Your task to perform on an android device: change notifications settings Image 0: 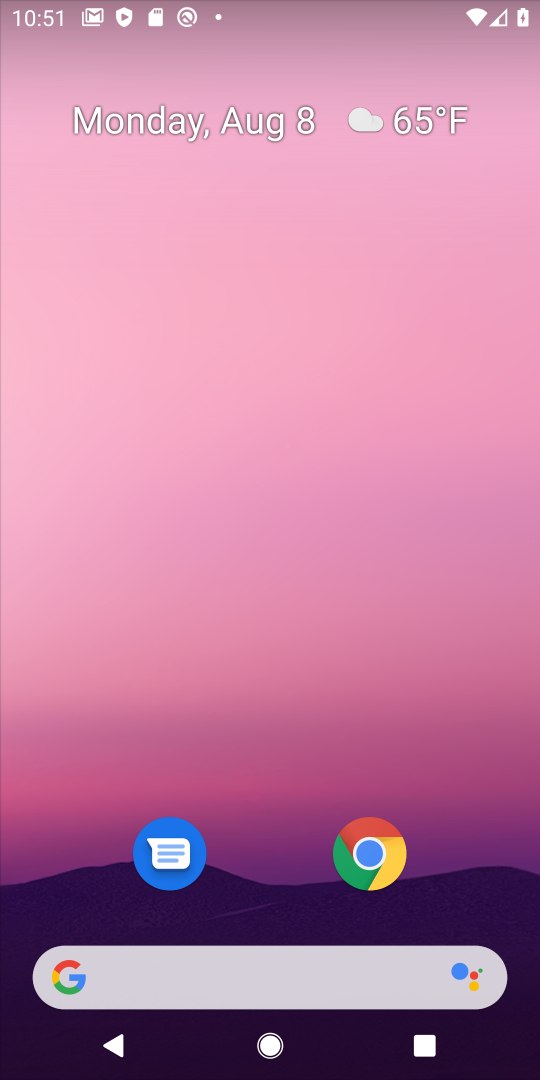
Step 0: task complete